Your task to perform on an android device: turn on data saver in the chrome app Image 0: 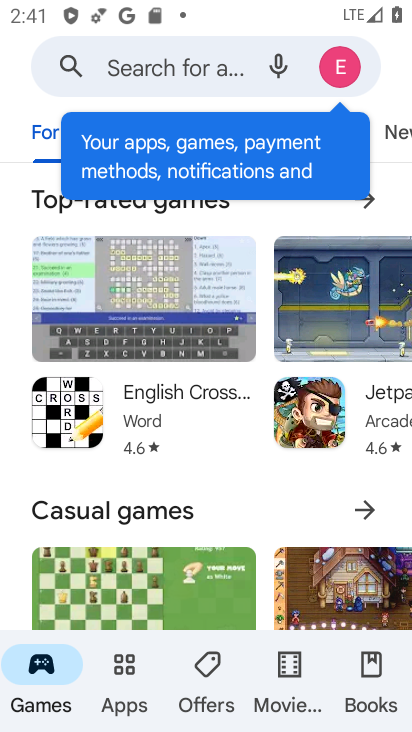
Step 0: press home button
Your task to perform on an android device: turn on data saver in the chrome app Image 1: 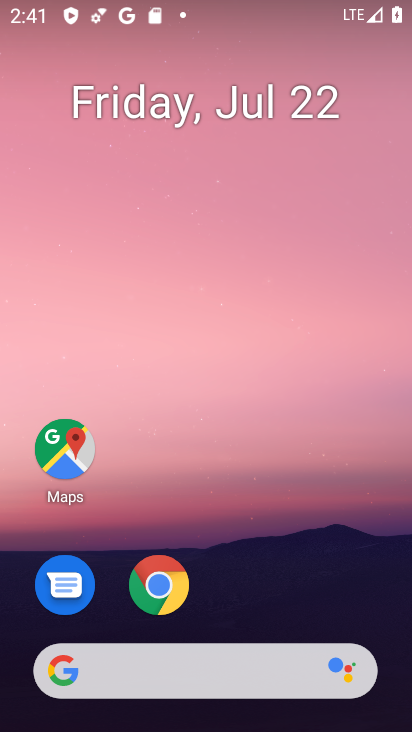
Step 1: click (167, 589)
Your task to perform on an android device: turn on data saver in the chrome app Image 2: 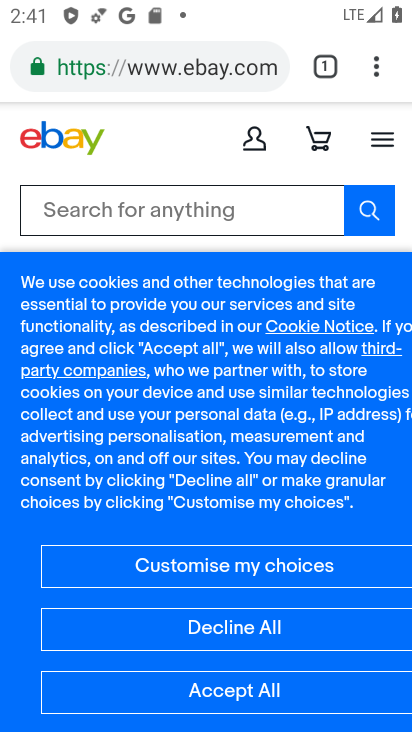
Step 2: drag from (219, 618) to (263, 206)
Your task to perform on an android device: turn on data saver in the chrome app Image 3: 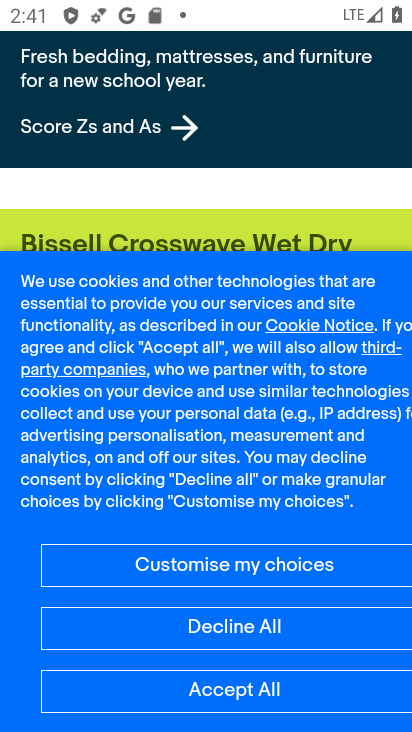
Step 3: click (259, 686)
Your task to perform on an android device: turn on data saver in the chrome app Image 4: 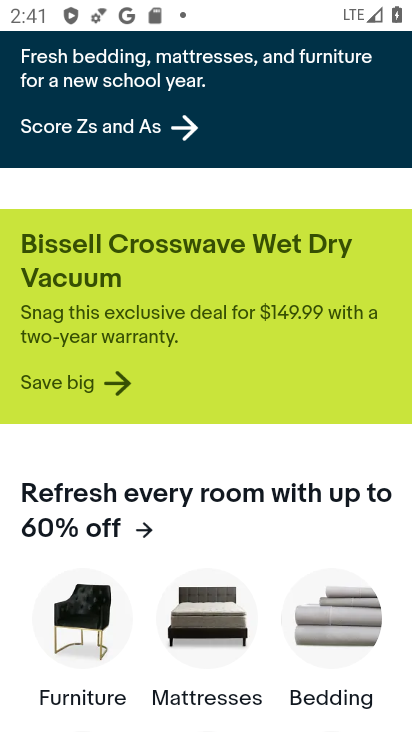
Step 4: press home button
Your task to perform on an android device: turn on data saver in the chrome app Image 5: 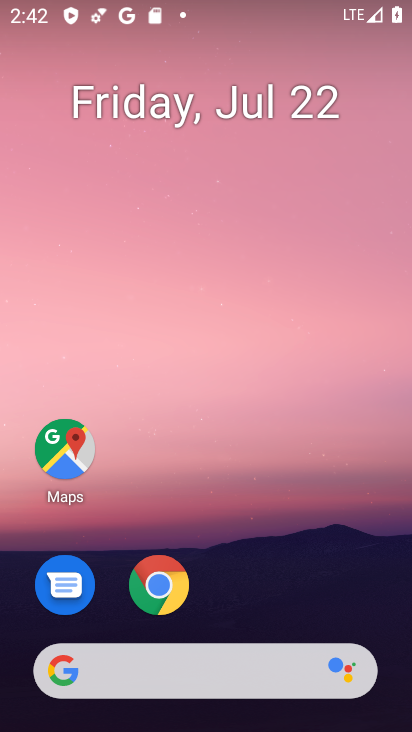
Step 5: click (166, 582)
Your task to perform on an android device: turn on data saver in the chrome app Image 6: 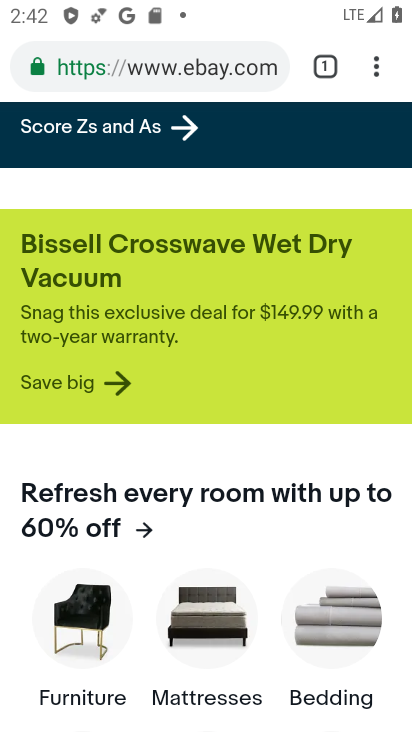
Step 6: click (377, 70)
Your task to perform on an android device: turn on data saver in the chrome app Image 7: 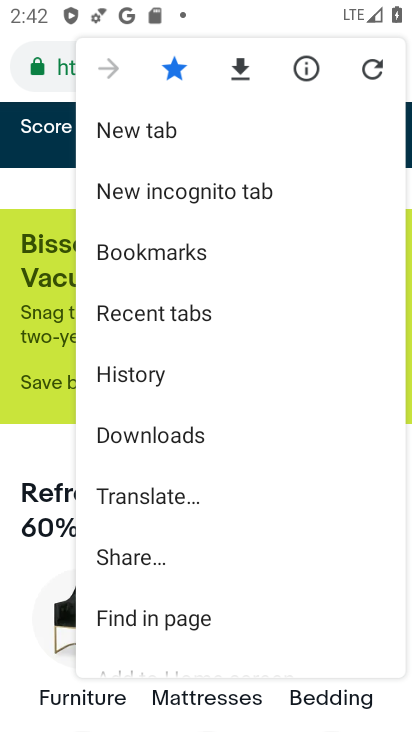
Step 7: drag from (221, 566) to (282, 242)
Your task to perform on an android device: turn on data saver in the chrome app Image 8: 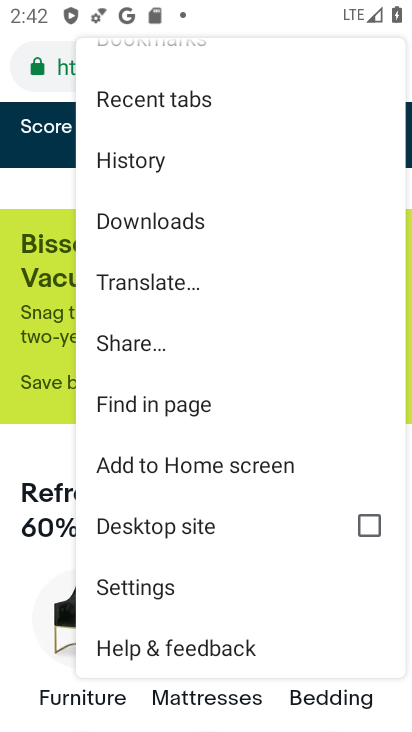
Step 8: click (160, 590)
Your task to perform on an android device: turn on data saver in the chrome app Image 9: 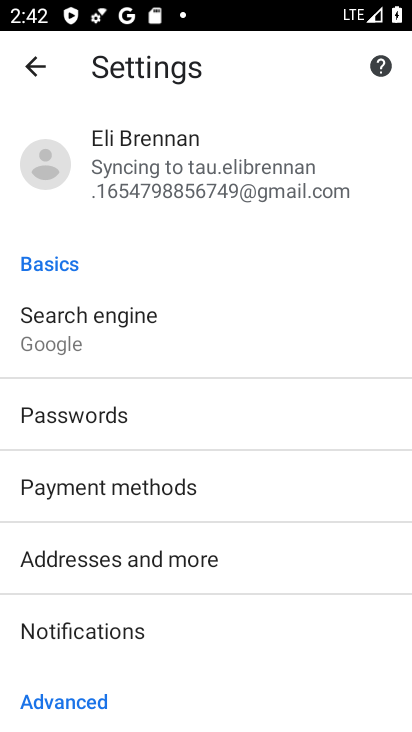
Step 9: drag from (232, 625) to (270, 141)
Your task to perform on an android device: turn on data saver in the chrome app Image 10: 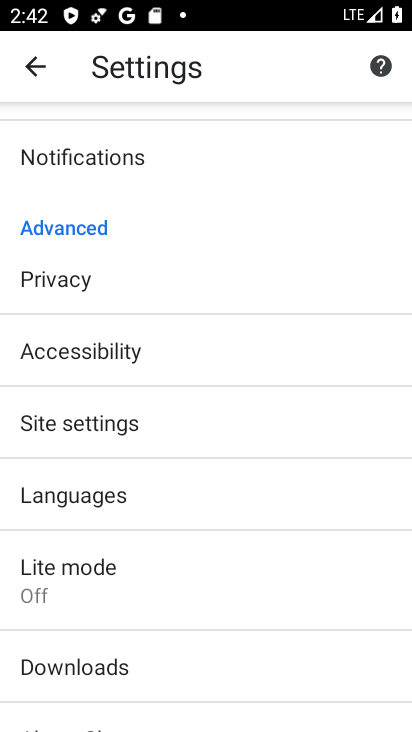
Step 10: click (138, 585)
Your task to perform on an android device: turn on data saver in the chrome app Image 11: 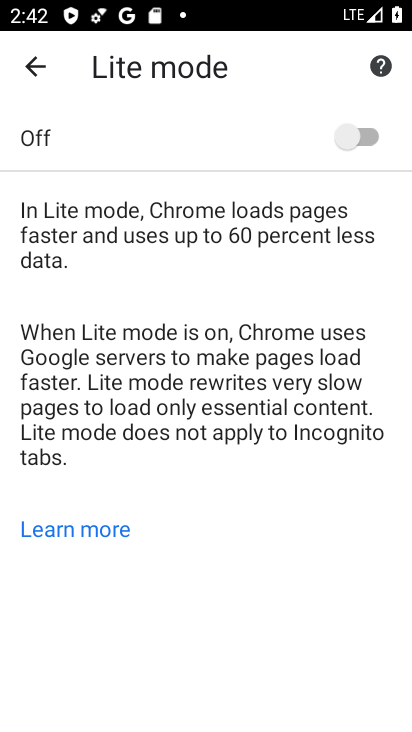
Step 11: click (370, 138)
Your task to perform on an android device: turn on data saver in the chrome app Image 12: 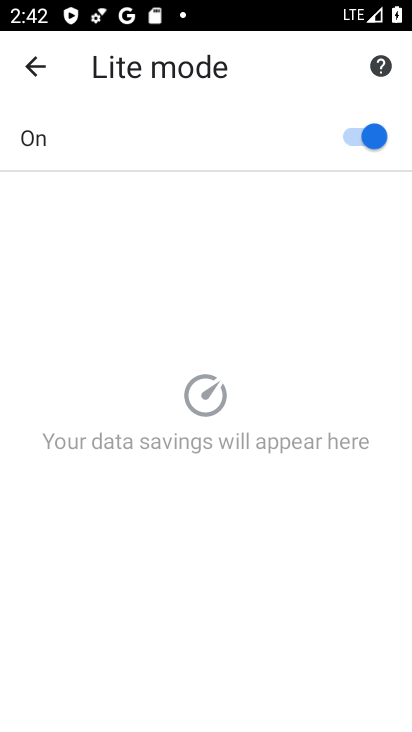
Step 12: task complete